Your task to perform on an android device: find photos in the google photos app Image 0: 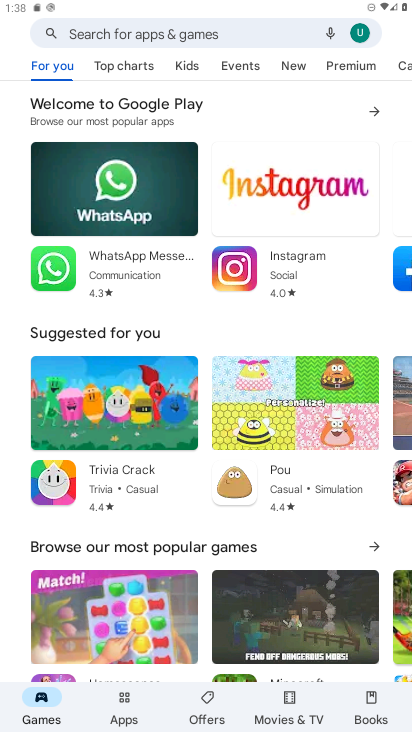
Step 0: task impossible